Your task to perform on an android device: Show me popular games on the Play Store Image 0: 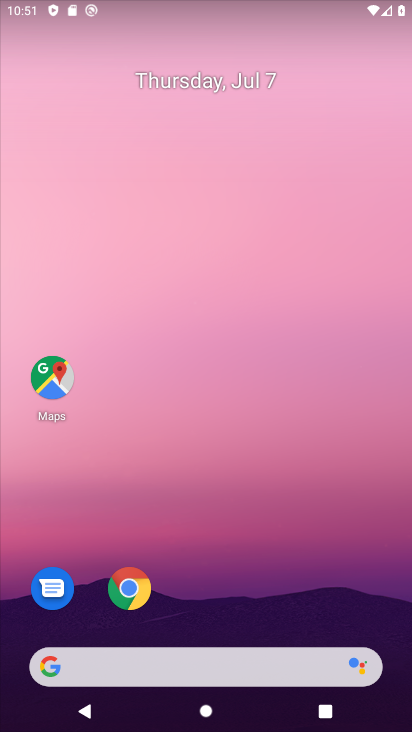
Step 0: drag from (207, 594) to (164, 50)
Your task to perform on an android device: Show me popular games on the Play Store Image 1: 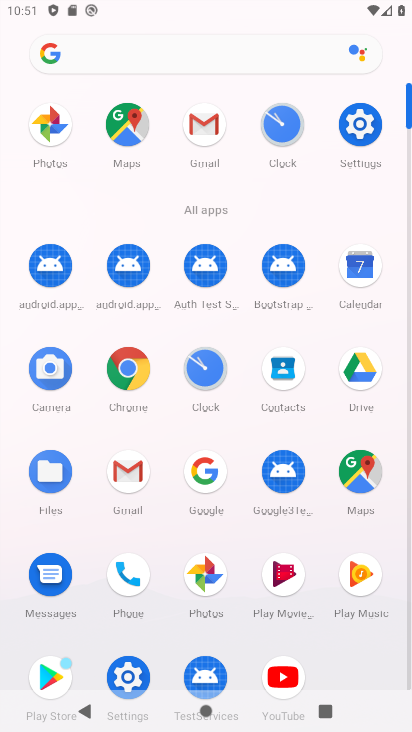
Step 1: drag from (214, 566) to (224, 86)
Your task to perform on an android device: Show me popular games on the Play Store Image 2: 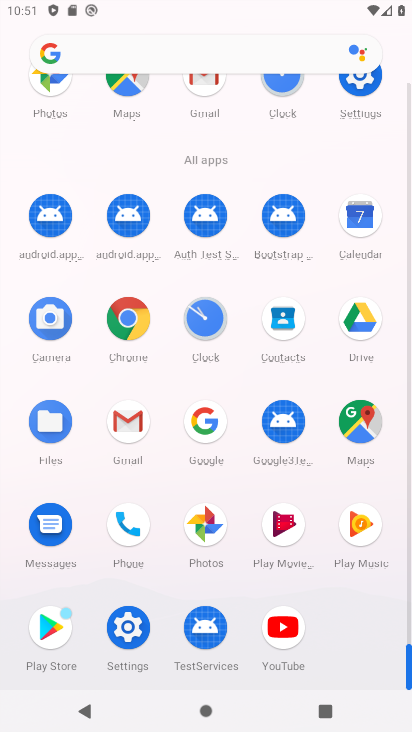
Step 2: click (62, 635)
Your task to perform on an android device: Show me popular games on the Play Store Image 3: 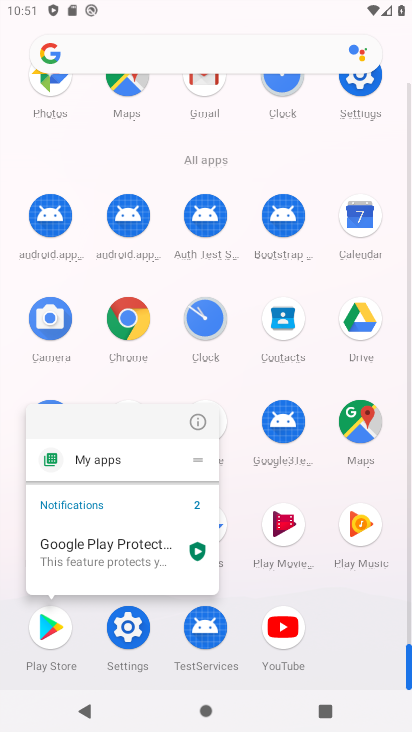
Step 3: click (196, 420)
Your task to perform on an android device: Show me popular games on the Play Store Image 4: 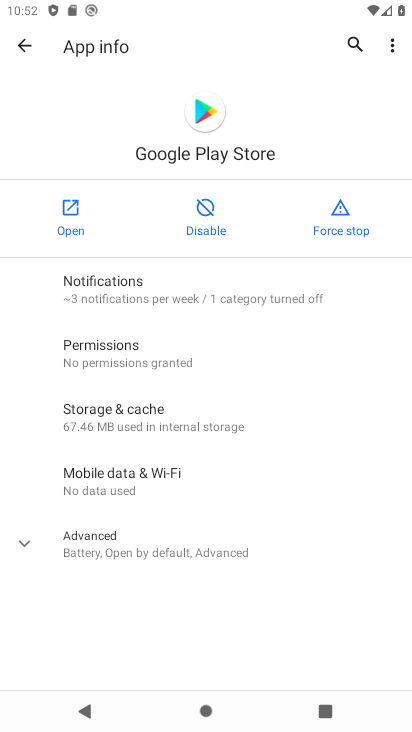
Step 4: click (74, 216)
Your task to perform on an android device: Show me popular games on the Play Store Image 5: 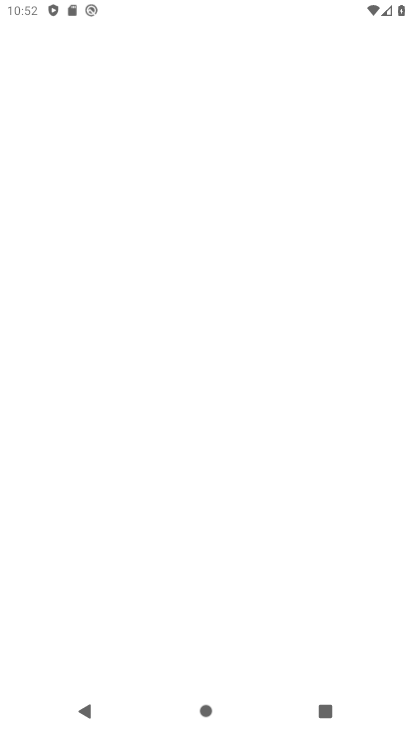
Step 5: drag from (183, 523) to (164, 239)
Your task to perform on an android device: Show me popular games on the Play Store Image 6: 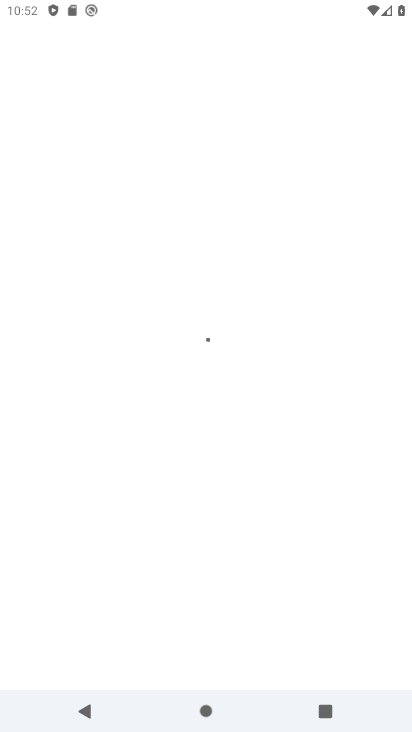
Step 6: drag from (223, 547) to (151, 125)
Your task to perform on an android device: Show me popular games on the Play Store Image 7: 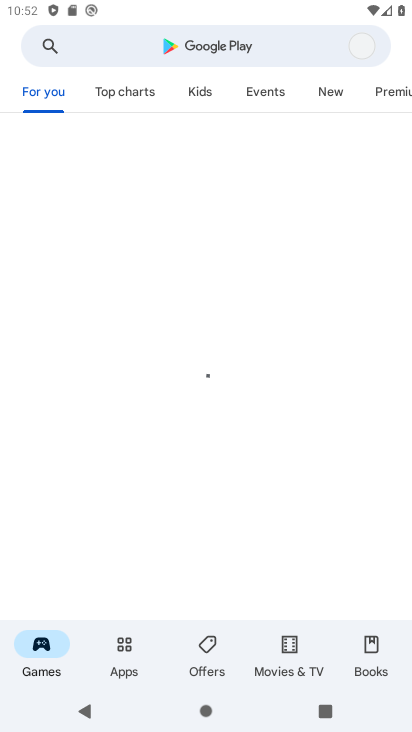
Step 7: drag from (232, 563) to (207, 369)
Your task to perform on an android device: Show me popular games on the Play Store Image 8: 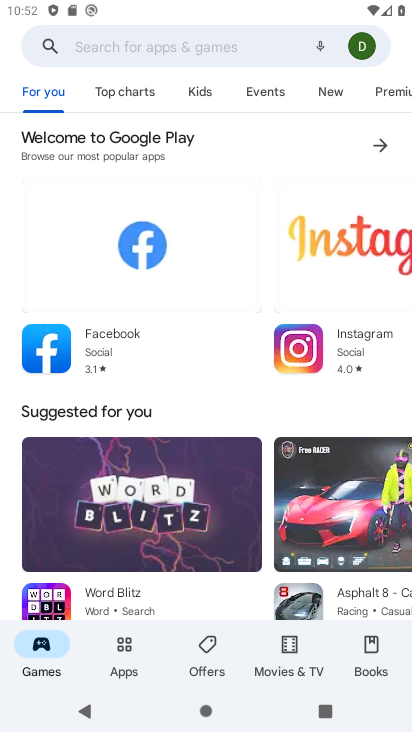
Step 8: drag from (207, 568) to (196, 100)
Your task to perform on an android device: Show me popular games on the Play Store Image 9: 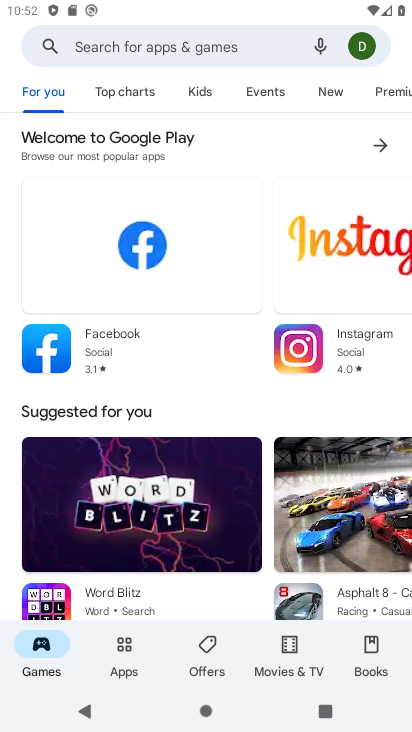
Step 9: drag from (250, 478) to (310, 716)
Your task to perform on an android device: Show me popular games on the Play Store Image 10: 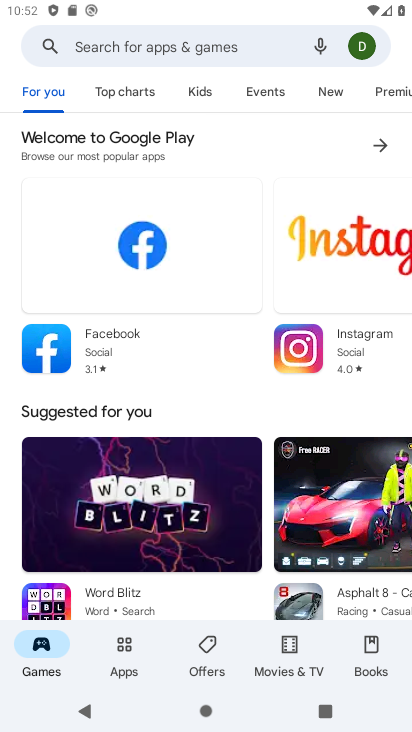
Step 10: drag from (227, 233) to (282, 500)
Your task to perform on an android device: Show me popular games on the Play Store Image 11: 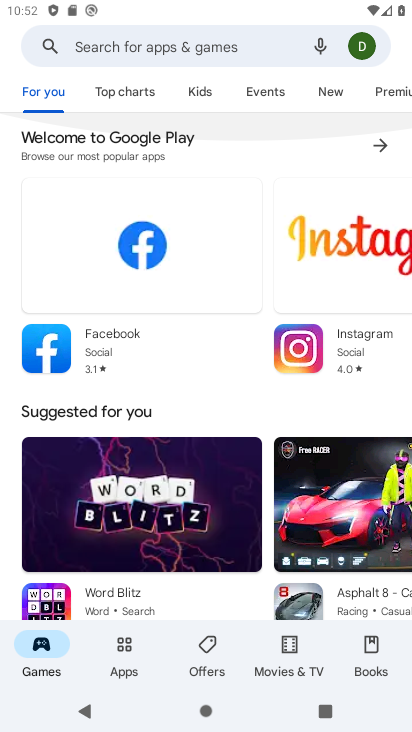
Step 11: drag from (264, 505) to (291, 216)
Your task to perform on an android device: Show me popular games on the Play Store Image 12: 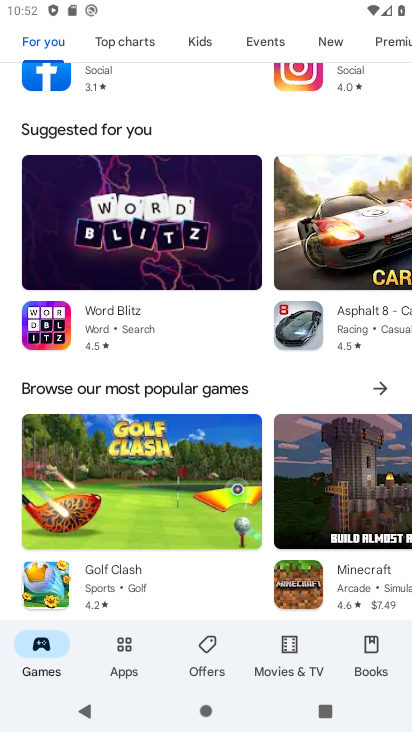
Step 12: drag from (251, 543) to (236, 232)
Your task to perform on an android device: Show me popular games on the Play Store Image 13: 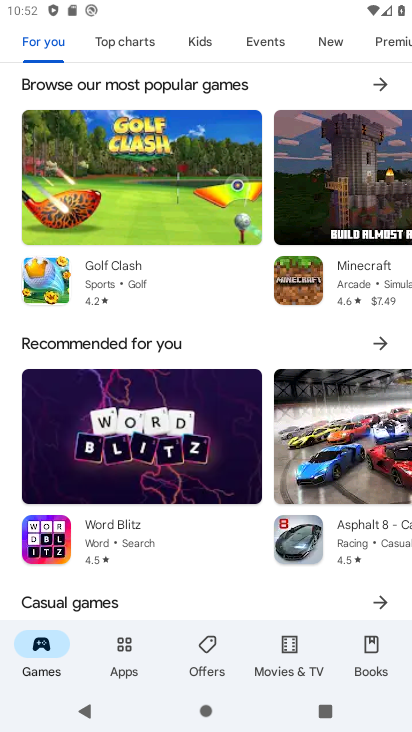
Step 13: click (379, 81)
Your task to perform on an android device: Show me popular games on the Play Store Image 14: 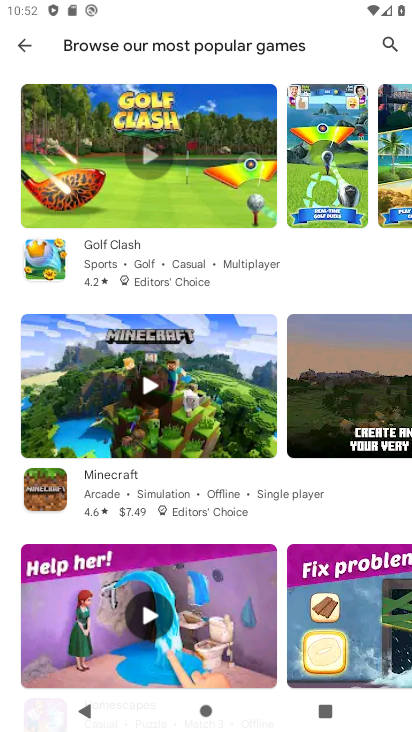
Step 14: task complete